Your task to perform on an android device: Open Chrome and go to settings Image 0: 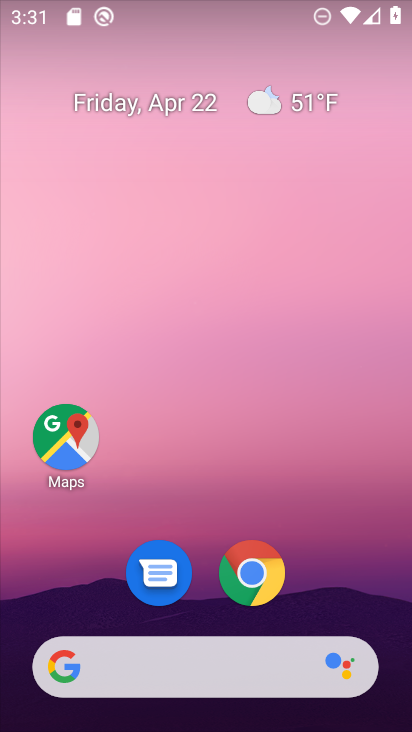
Step 0: click (274, 555)
Your task to perform on an android device: Open Chrome and go to settings Image 1: 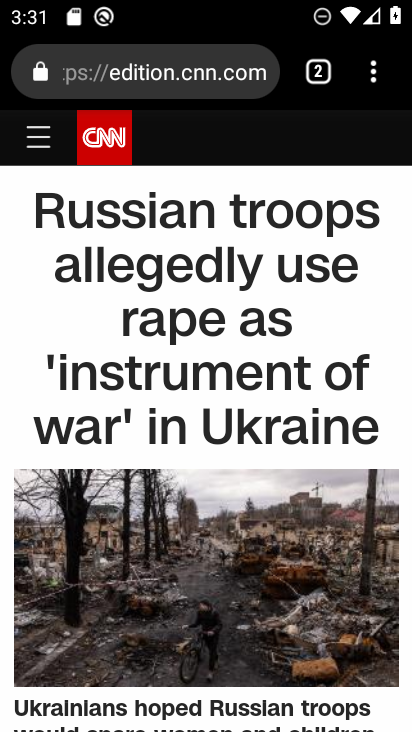
Step 1: click (375, 72)
Your task to perform on an android device: Open Chrome and go to settings Image 2: 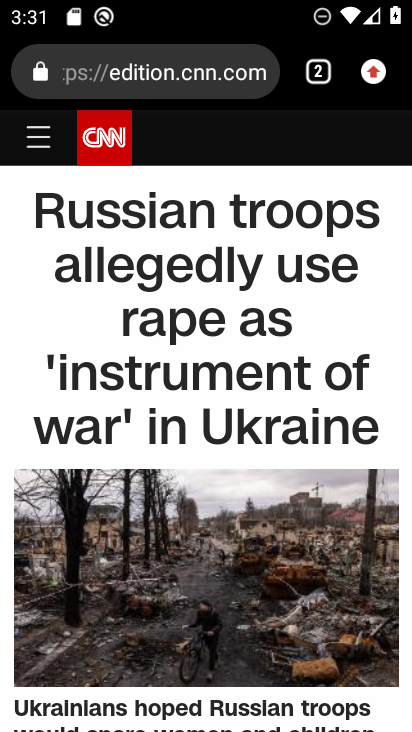
Step 2: click (375, 72)
Your task to perform on an android device: Open Chrome and go to settings Image 3: 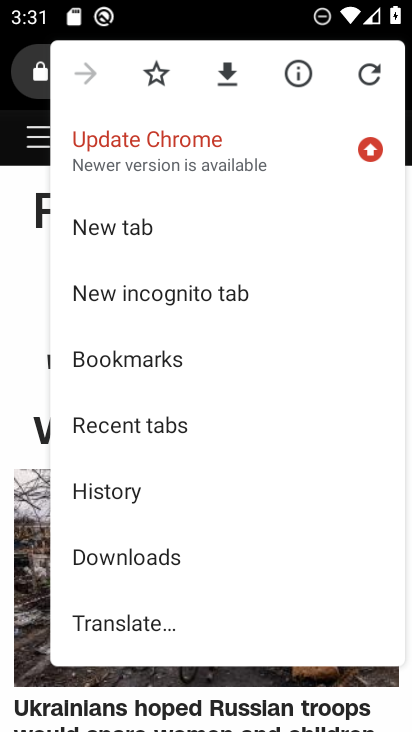
Step 3: drag from (230, 545) to (300, 131)
Your task to perform on an android device: Open Chrome and go to settings Image 4: 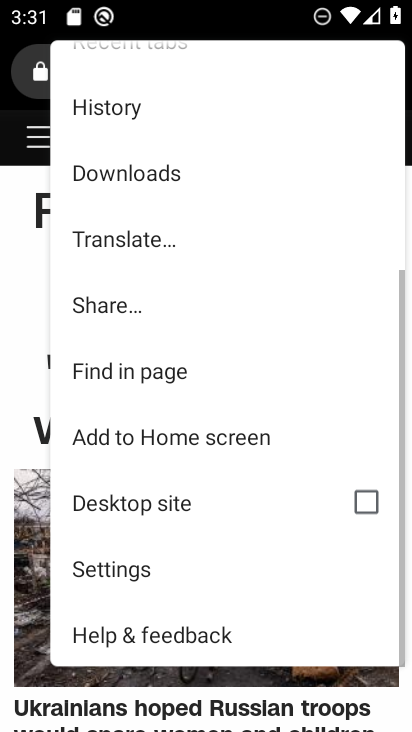
Step 4: click (158, 575)
Your task to perform on an android device: Open Chrome and go to settings Image 5: 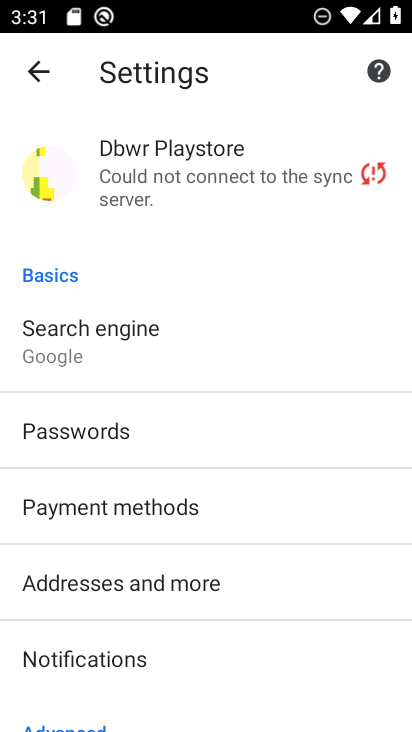
Step 5: task complete